Your task to perform on an android device: turn vacation reply on in the gmail app Image 0: 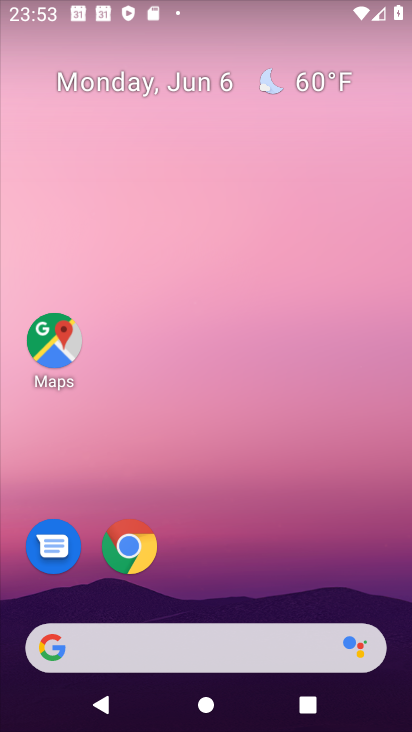
Step 0: drag from (255, 614) to (138, 296)
Your task to perform on an android device: turn vacation reply on in the gmail app Image 1: 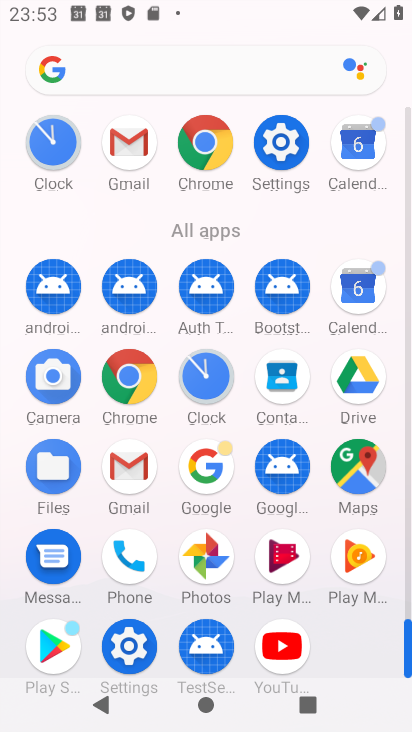
Step 1: click (121, 475)
Your task to perform on an android device: turn vacation reply on in the gmail app Image 2: 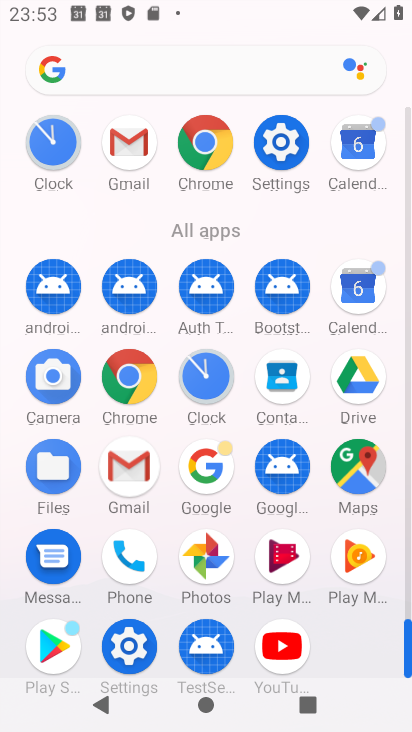
Step 2: click (121, 475)
Your task to perform on an android device: turn vacation reply on in the gmail app Image 3: 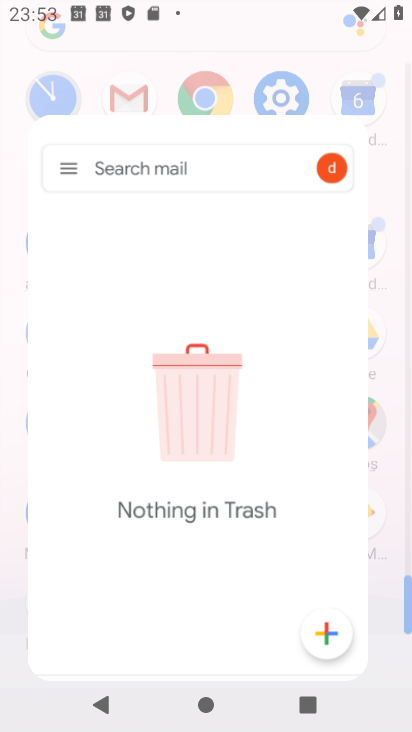
Step 3: click (121, 475)
Your task to perform on an android device: turn vacation reply on in the gmail app Image 4: 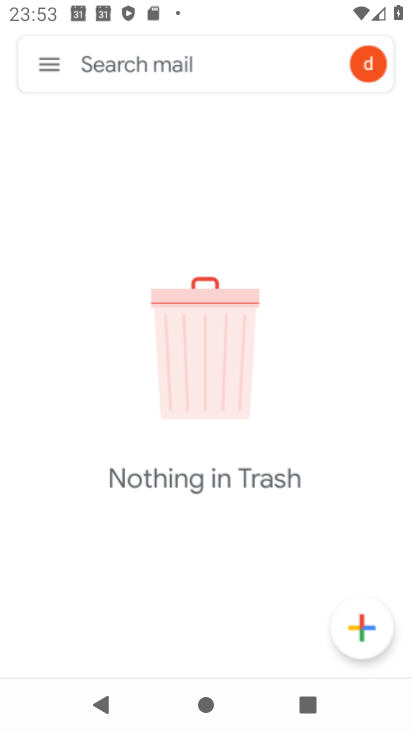
Step 4: click (121, 475)
Your task to perform on an android device: turn vacation reply on in the gmail app Image 5: 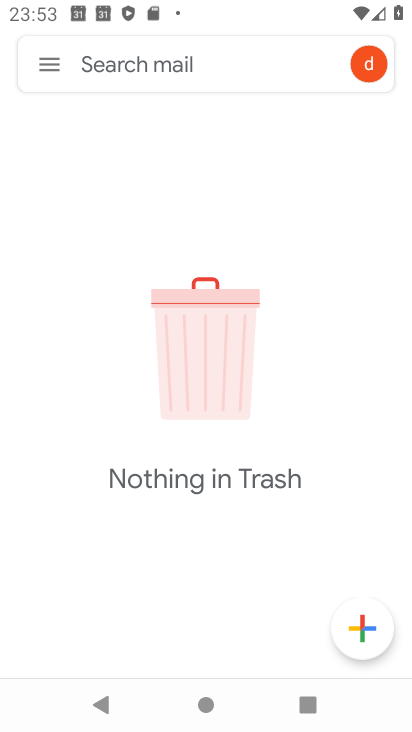
Step 5: click (44, 63)
Your task to perform on an android device: turn vacation reply on in the gmail app Image 6: 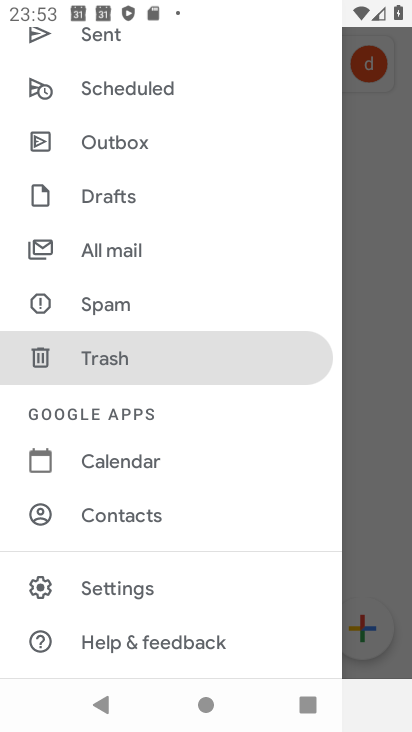
Step 6: click (96, 578)
Your task to perform on an android device: turn vacation reply on in the gmail app Image 7: 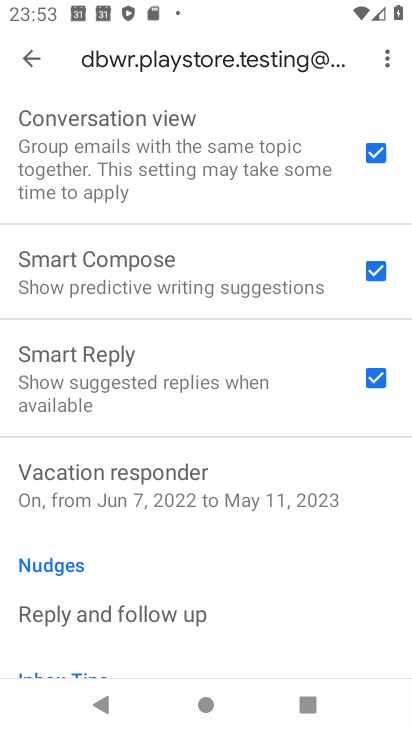
Step 7: click (175, 508)
Your task to perform on an android device: turn vacation reply on in the gmail app Image 8: 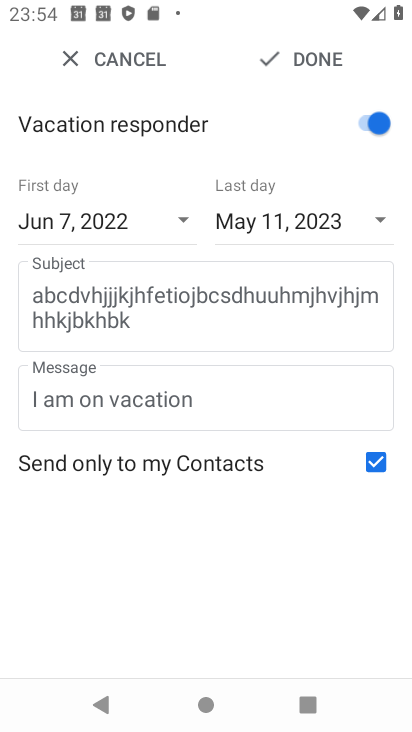
Step 8: task complete